Your task to perform on an android device: create a new album in the google photos Image 0: 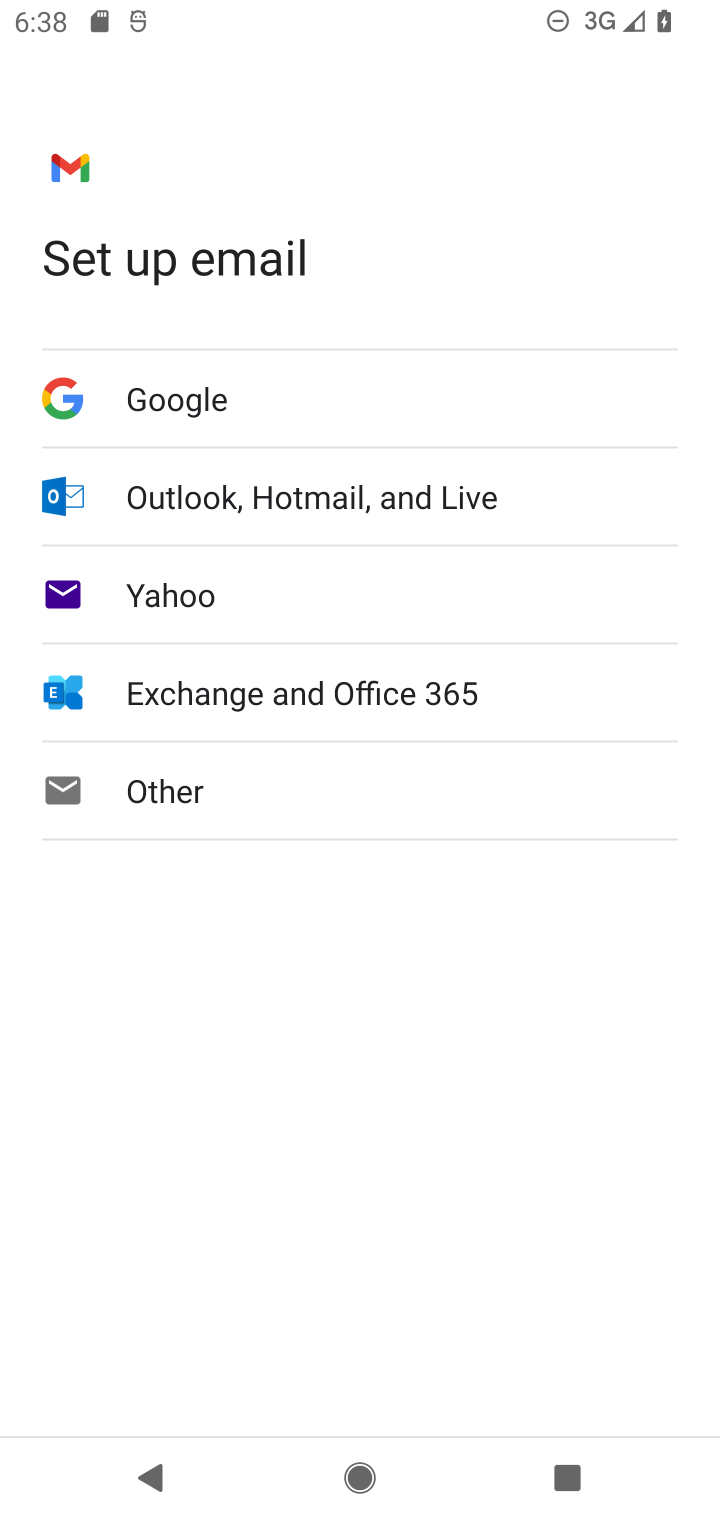
Step 0: press home button
Your task to perform on an android device: create a new album in the google photos Image 1: 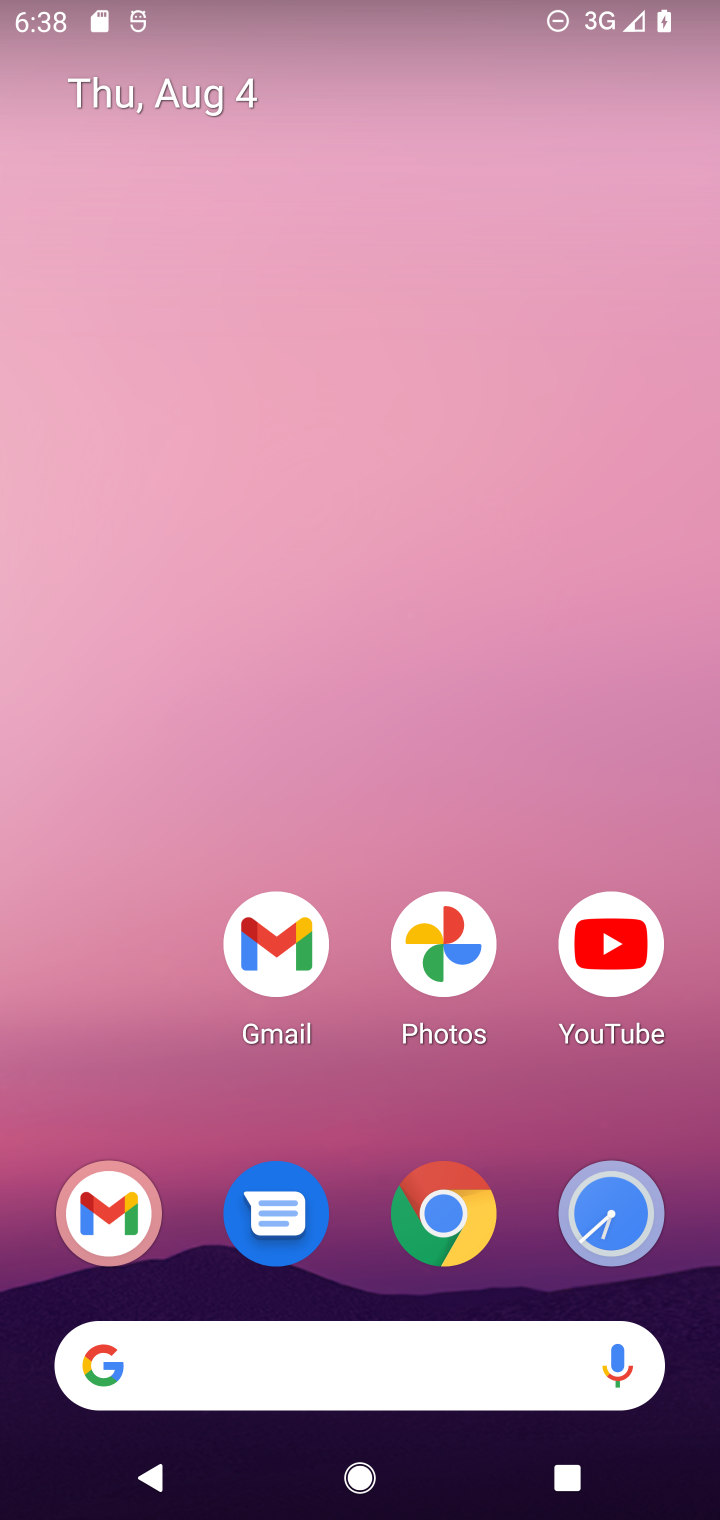
Step 1: drag from (155, 1050) to (97, 263)
Your task to perform on an android device: create a new album in the google photos Image 2: 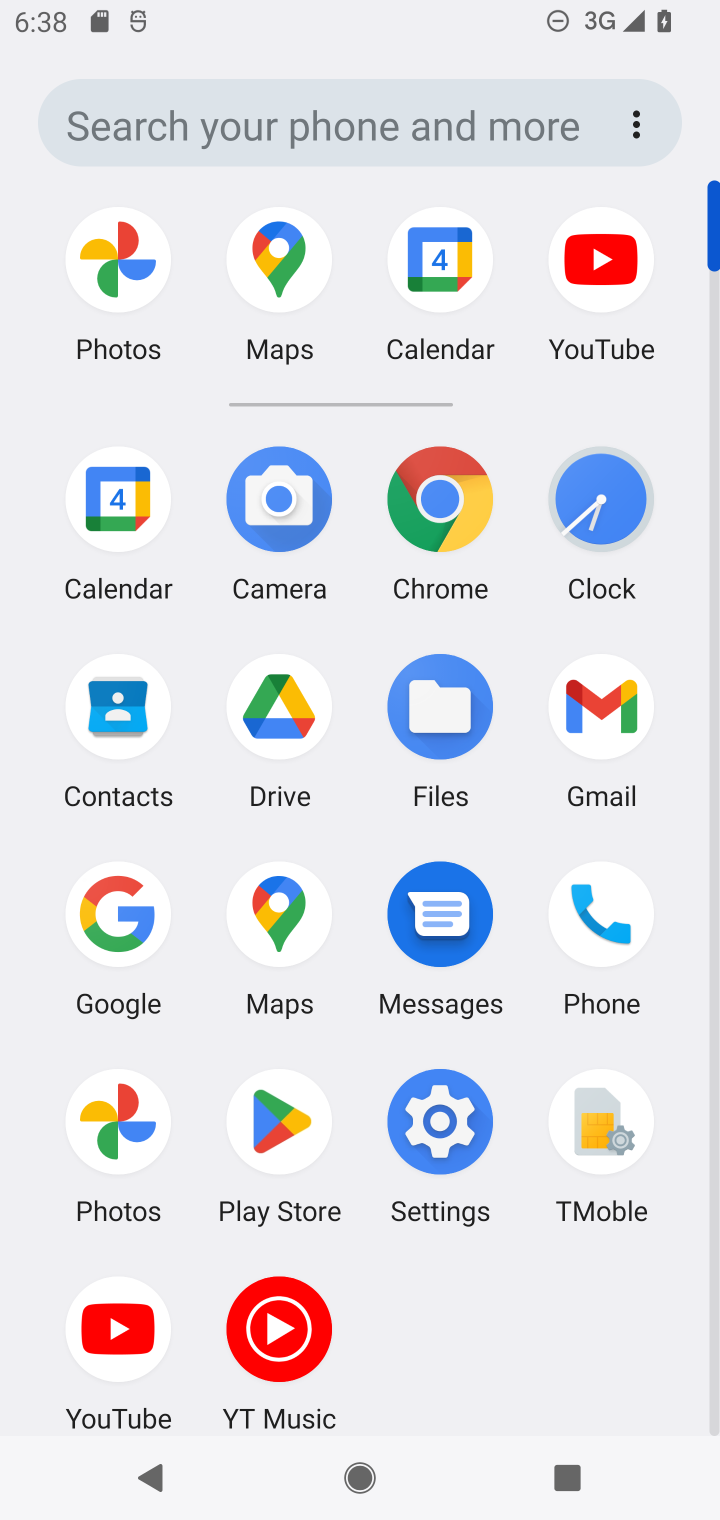
Step 2: click (140, 1132)
Your task to perform on an android device: create a new album in the google photos Image 3: 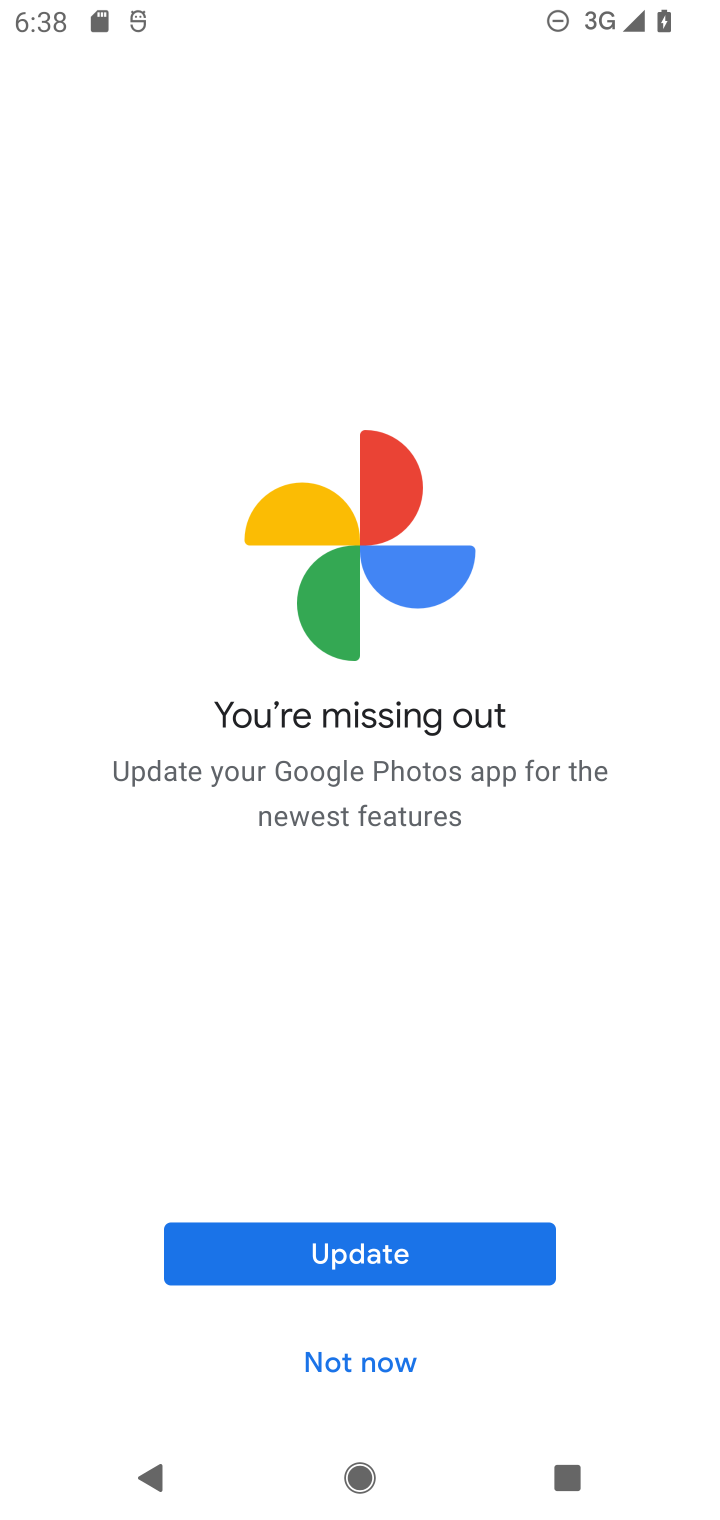
Step 3: click (363, 1360)
Your task to perform on an android device: create a new album in the google photos Image 4: 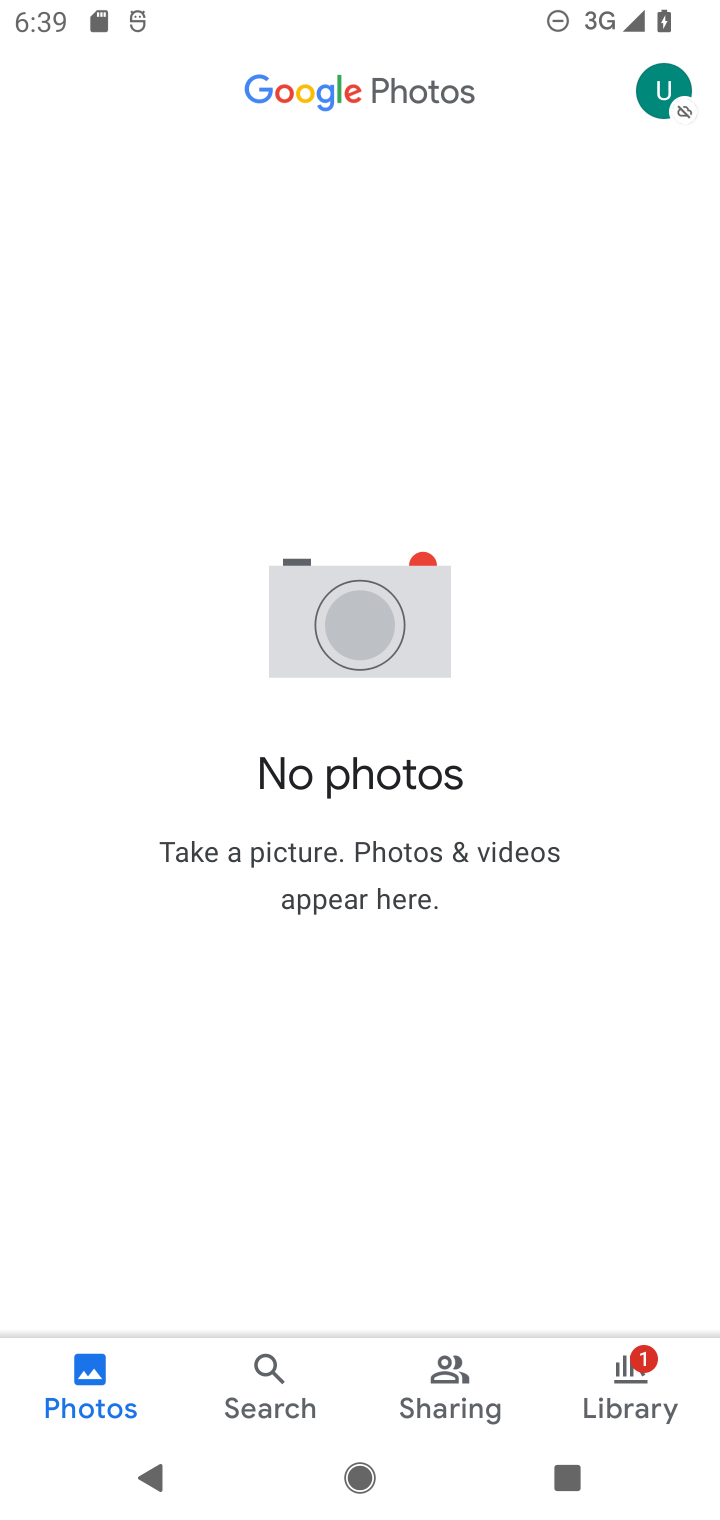
Step 4: click (632, 1383)
Your task to perform on an android device: create a new album in the google photos Image 5: 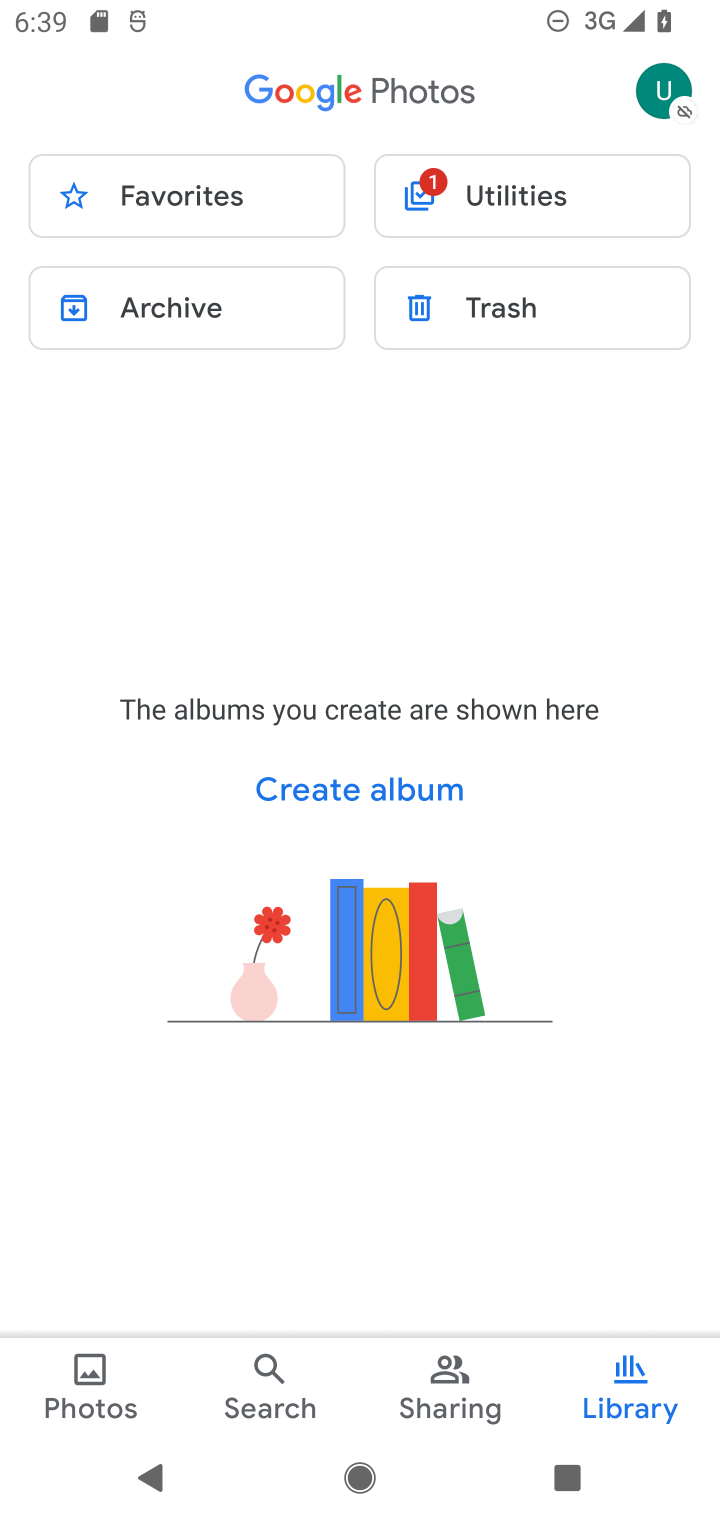
Step 5: click (333, 794)
Your task to perform on an android device: create a new album in the google photos Image 6: 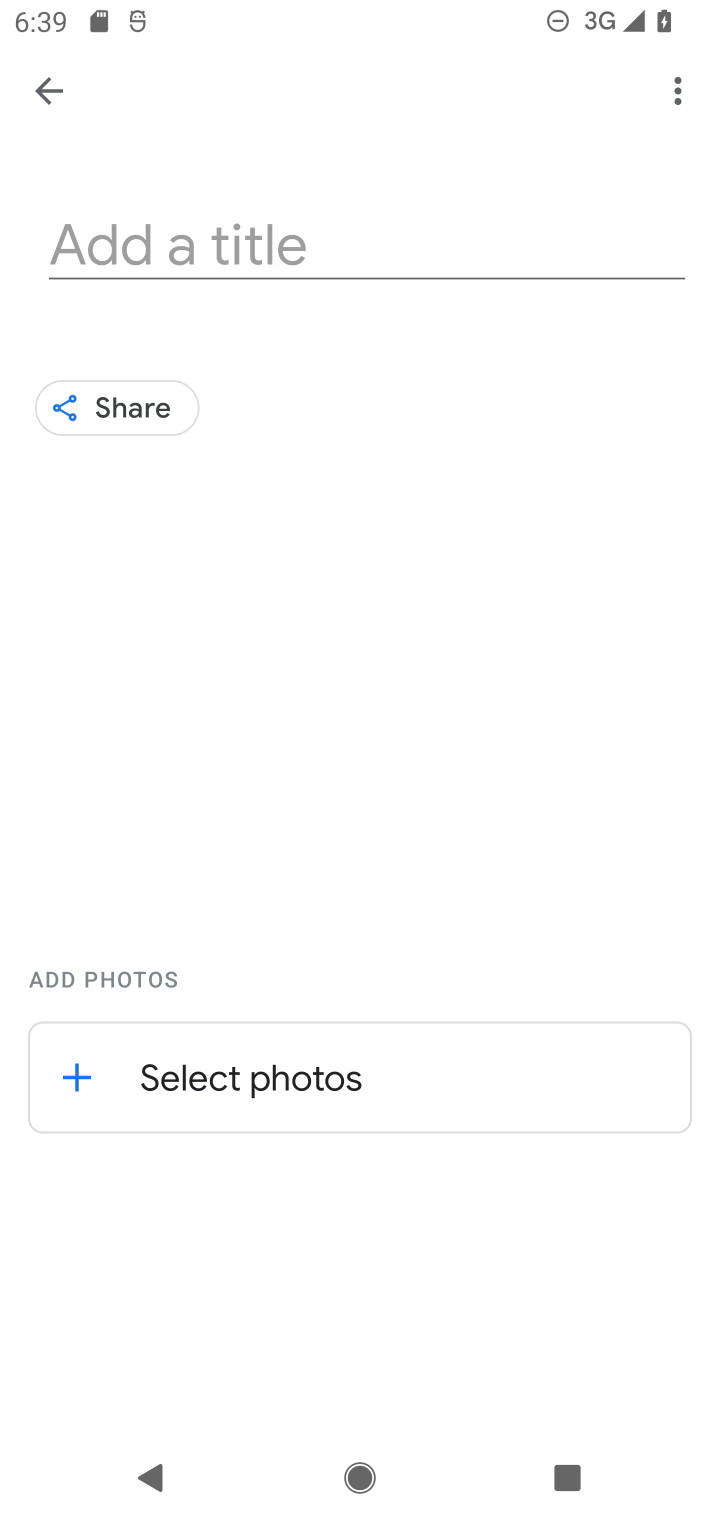
Step 6: click (362, 255)
Your task to perform on an android device: create a new album in the google photos Image 7: 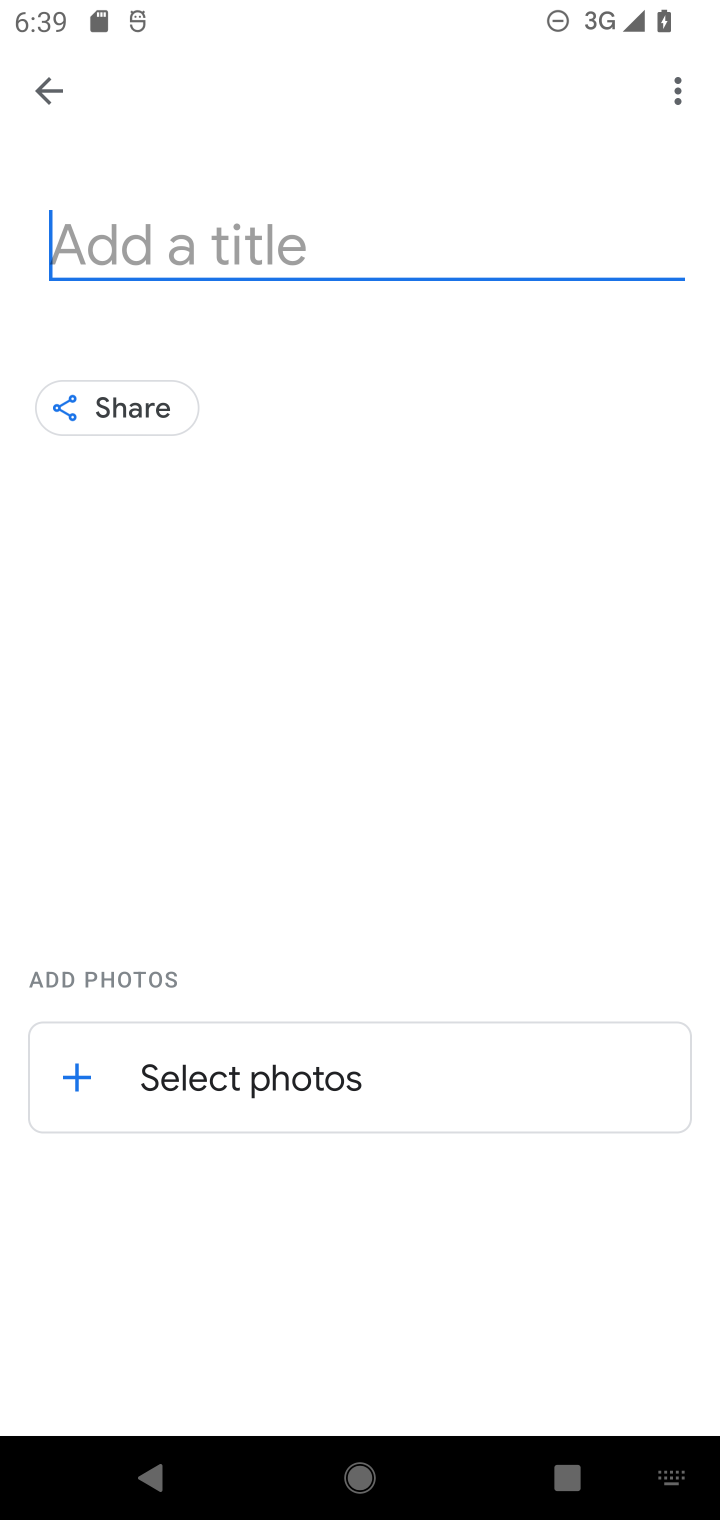
Step 7: click (292, 1065)
Your task to perform on an android device: create a new album in the google photos Image 8: 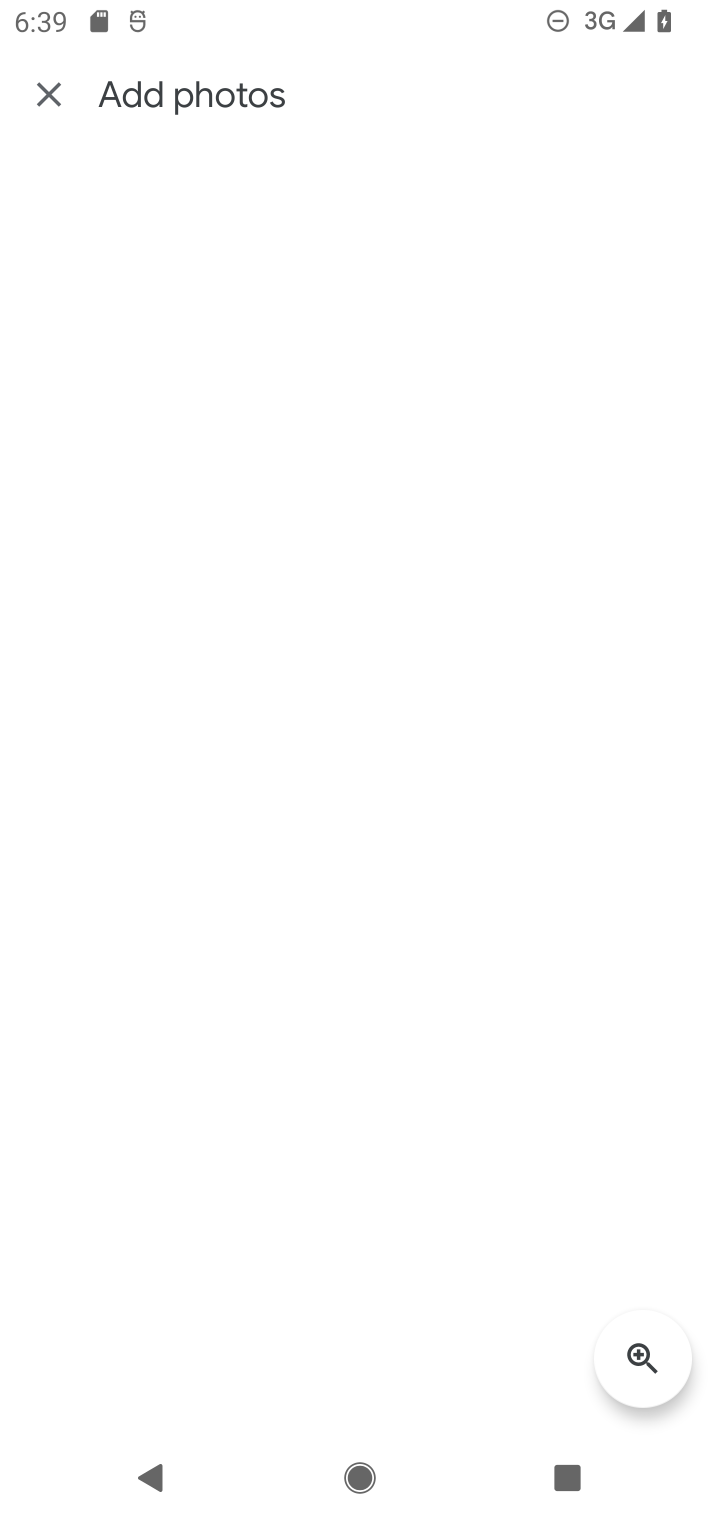
Step 8: task complete